Your task to perform on an android device: set the timer Image 0: 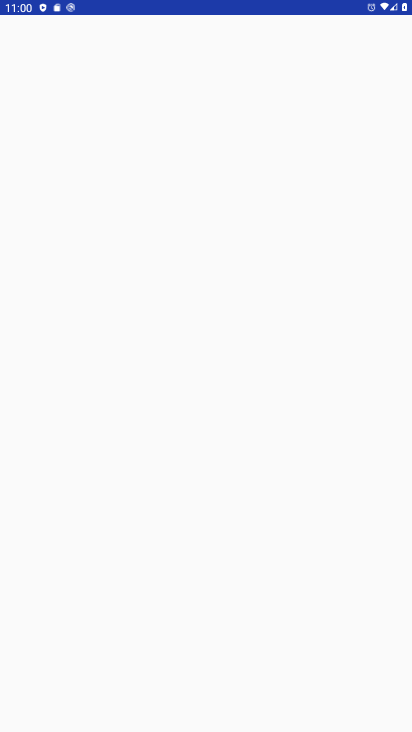
Step 0: press home button
Your task to perform on an android device: set the timer Image 1: 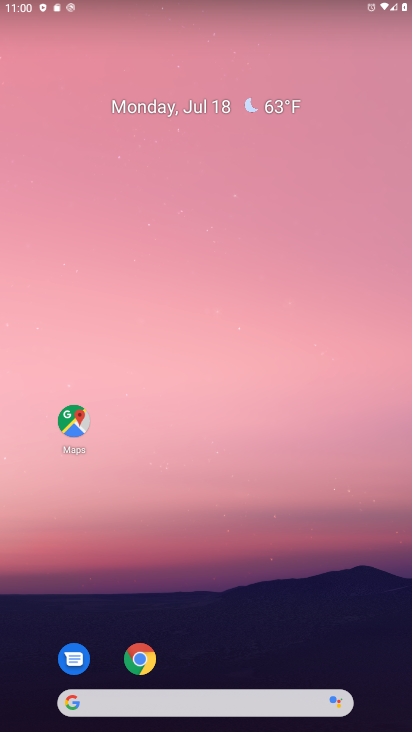
Step 1: drag from (198, 666) to (252, 157)
Your task to perform on an android device: set the timer Image 2: 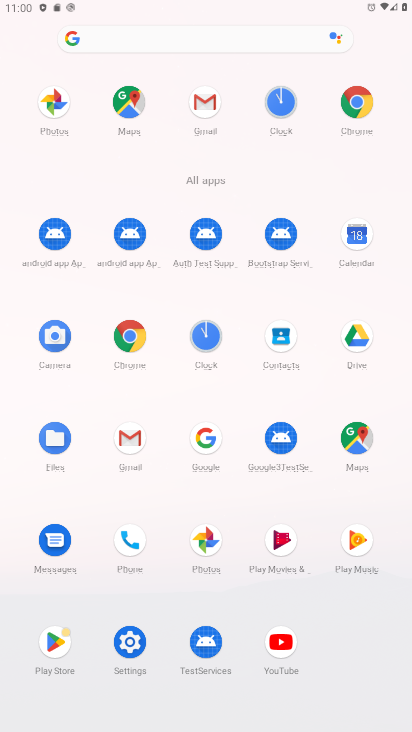
Step 2: click (280, 103)
Your task to perform on an android device: set the timer Image 3: 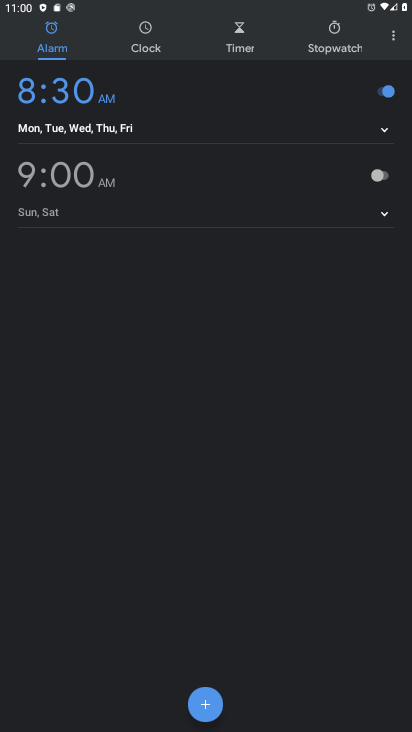
Step 3: click (236, 39)
Your task to perform on an android device: set the timer Image 4: 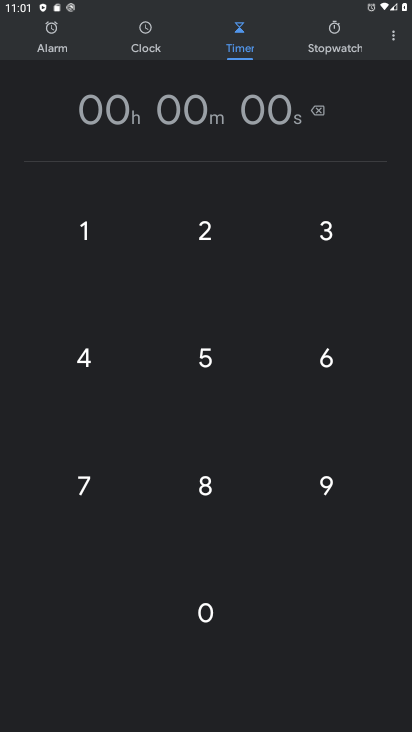
Step 4: click (209, 235)
Your task to perform on an android device: set the timer Image 5: 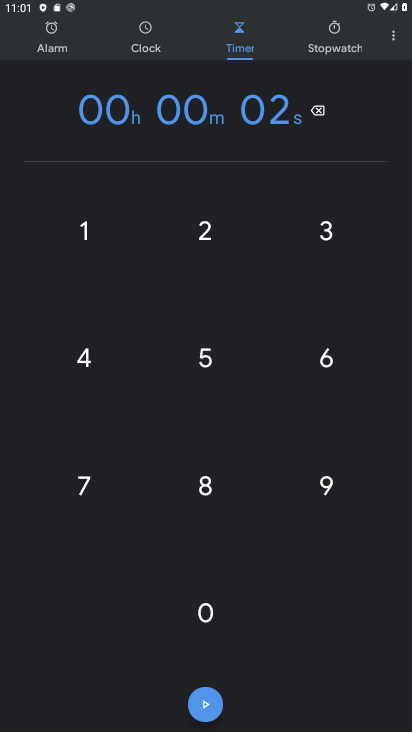
Step 5: click (209, 235)
Your task to perform on an android device: set the timer Image 6: 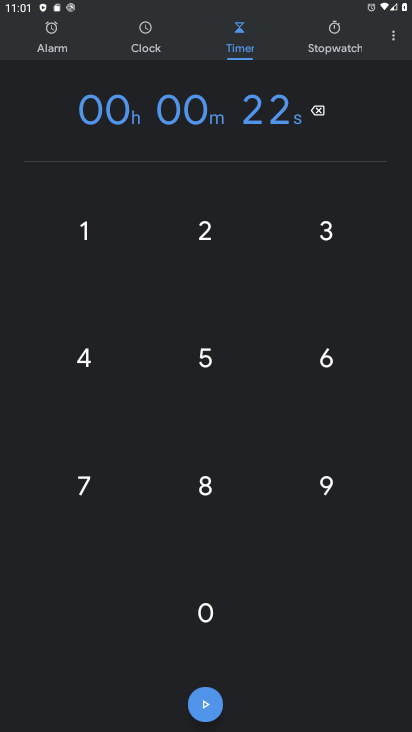
Step 6: task complete